Your task to perform on an android device: turn on the 24-hour format for clock Image 0: 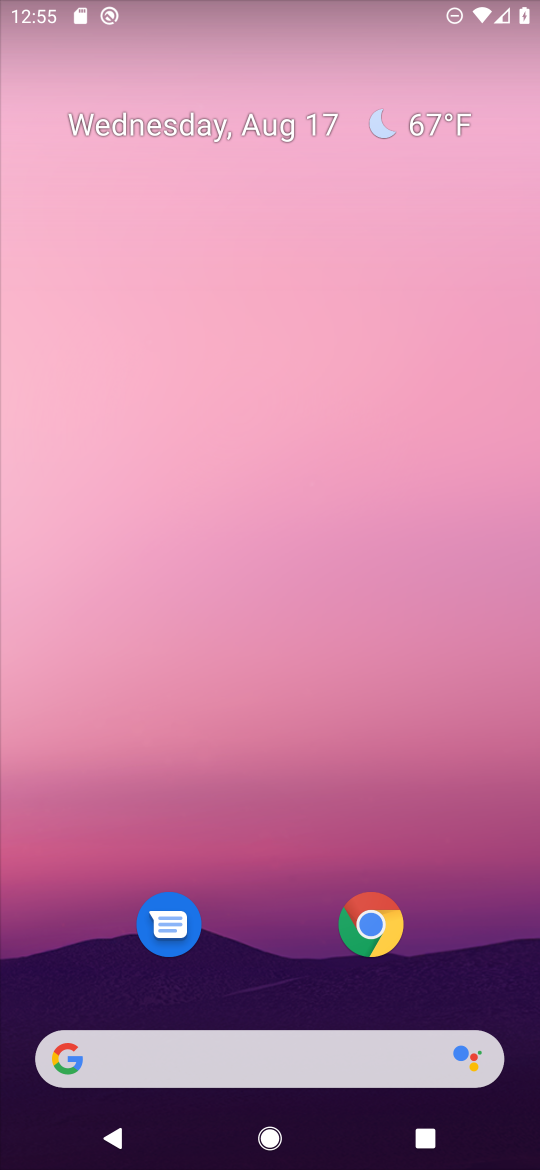
Step 0: drag from (264, 1017) to (267, 157)
Your task to perform on an android device: turn on the 24-hour format for clock Image 1: 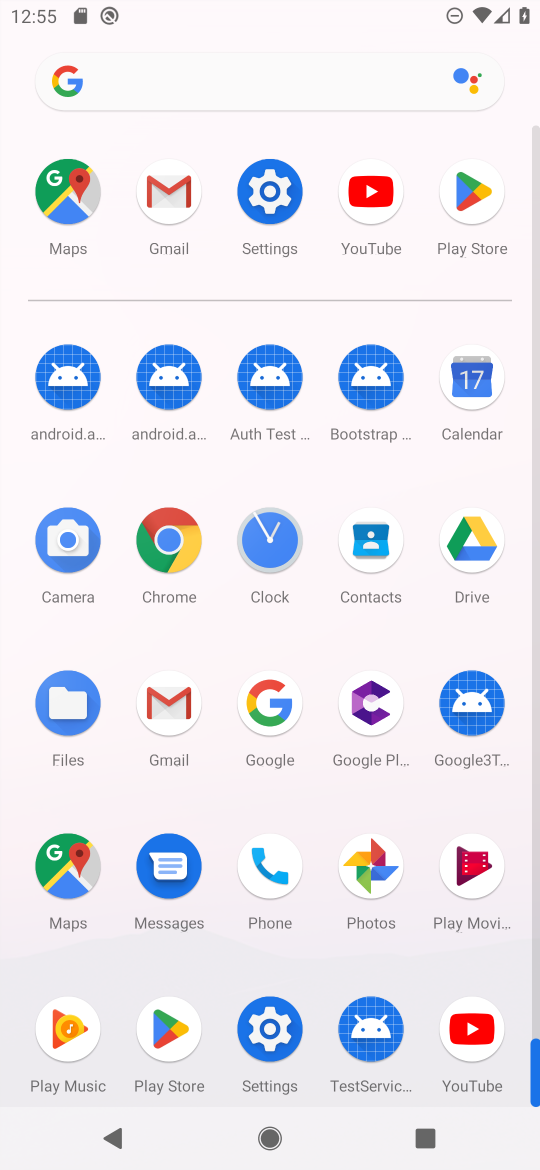
Step 1: click (261, 543)
Your task to perform on an android device: turn on the 24-hour format for clock Image 2: 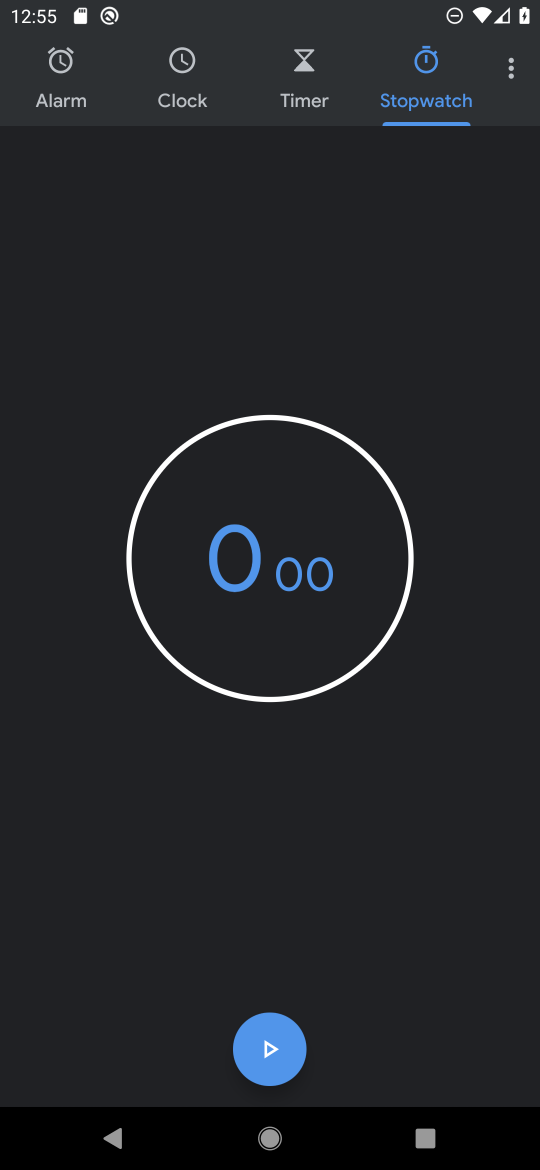
Step 2: click (525, 61)
Your task to perform on an android device: turn on the 24-hour format for clock Image 3: 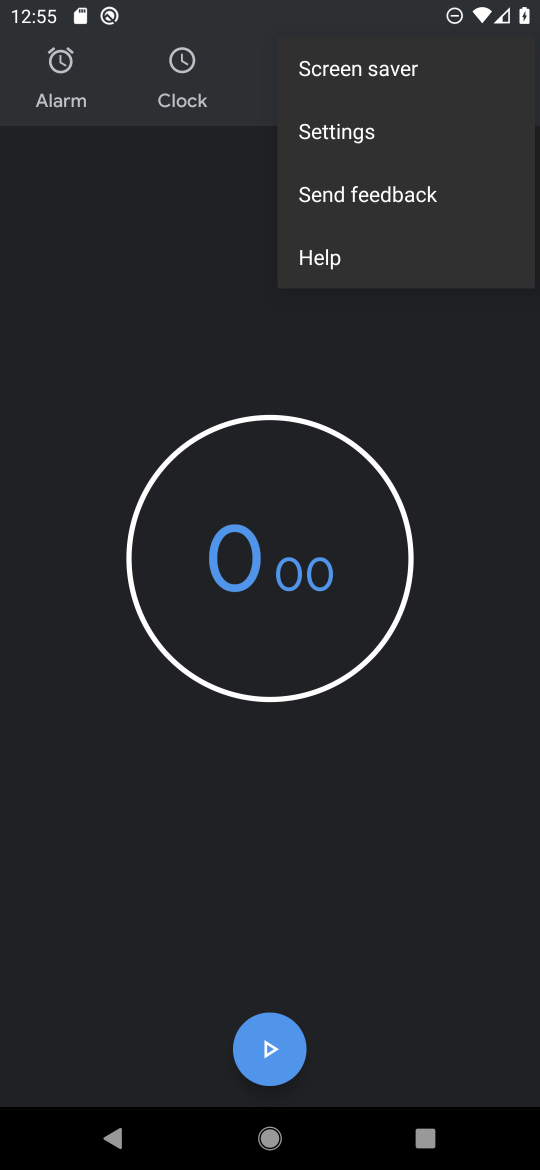
Step 3: click (373, 136)
Your task to perform on an android device: turn on the 24-hour format for clock Image 4: 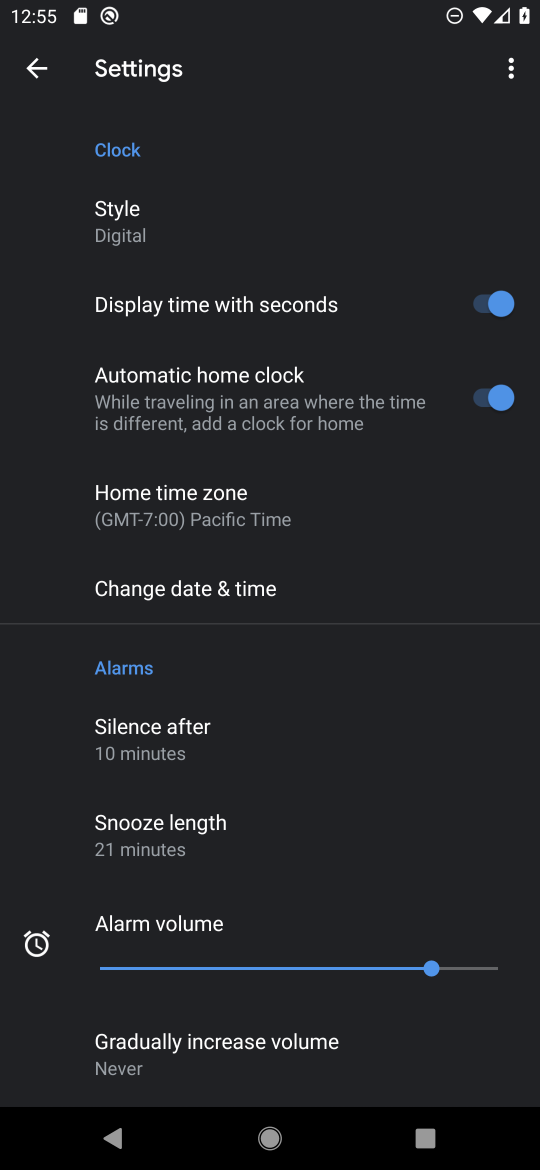
Step 4: drag from (301, 599) to (244, 59)
Your task to perform on an android device: turn on the 24-hour format for clock Image 5: 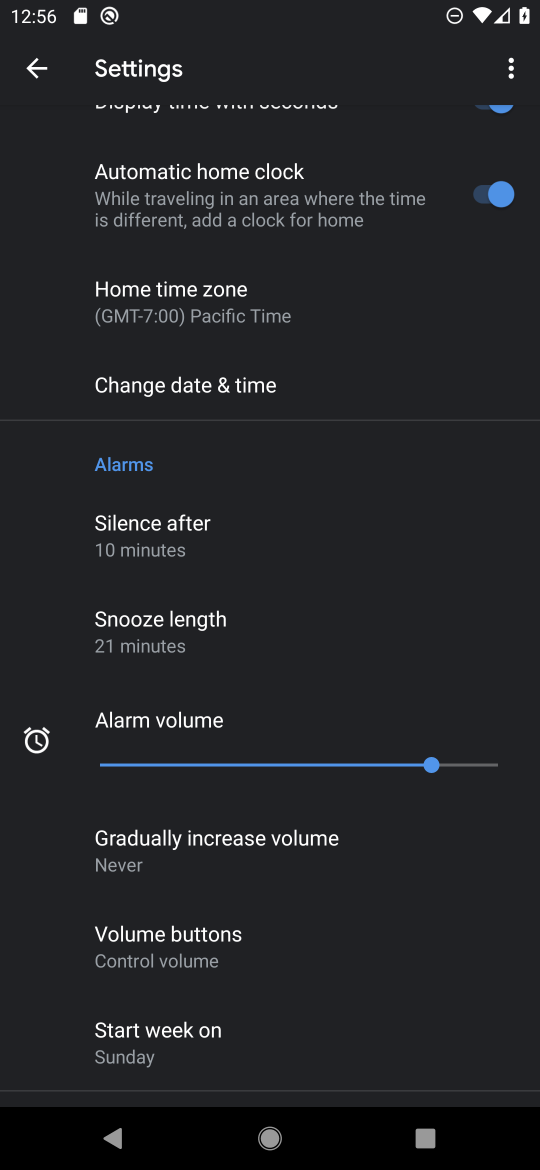
Step 5: drag from (256, 1089) to (233, 322)
Your task to perform on an android device: turn on the 24-hour format for clock Image 6: 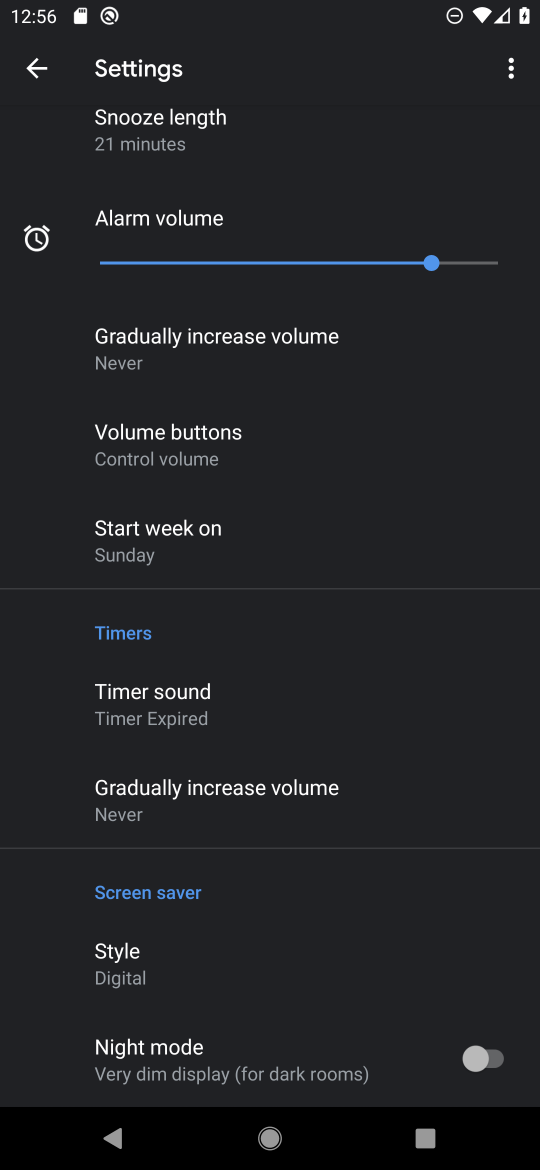
Step 6: drag from (275, 149) to (345, 990)
Your task to perform on an android device: turn on the 24-hour format for clock Image 7: 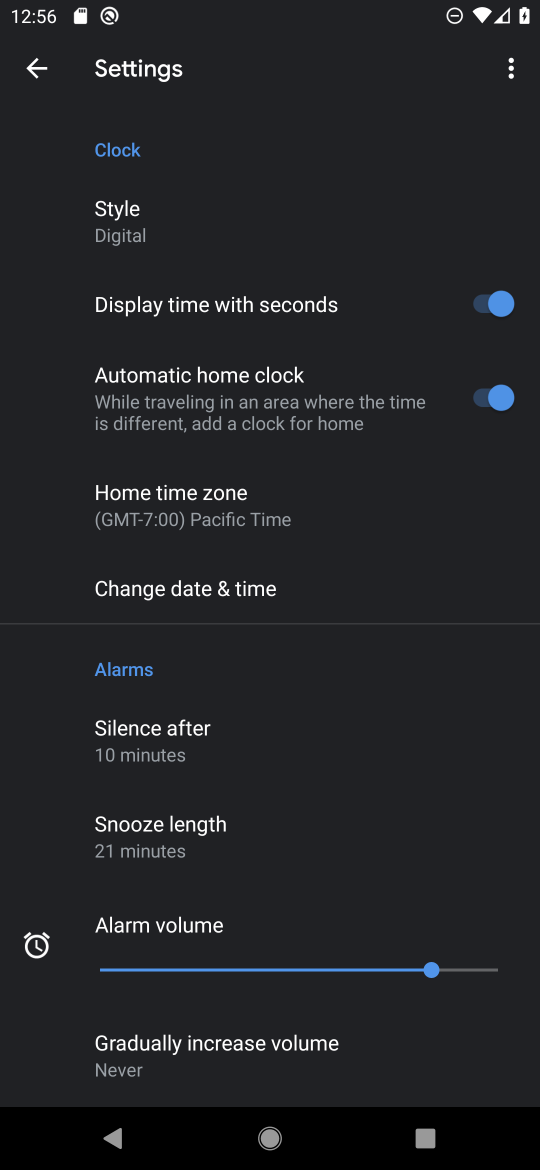
Step 7: drag from (22, 744) to (168, 44)
Your task to perform on an android device: turn on the 24-hour format for clock Image 8: 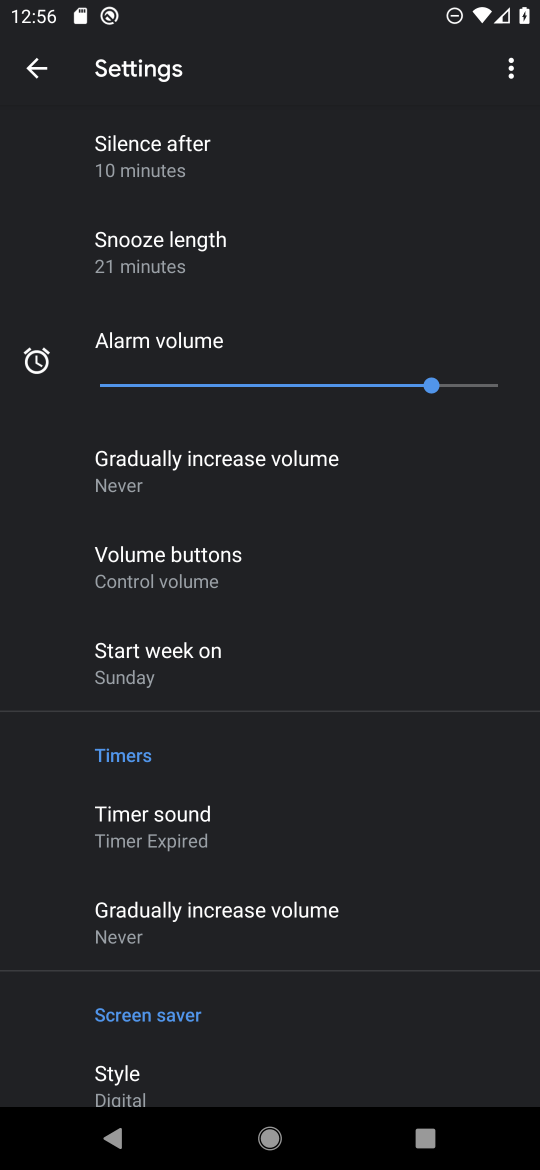
Step 8: drag from (370, 164) to (445, 923)
Your task to perform on an android device: turn on the 24-hour format for clock Image 9: 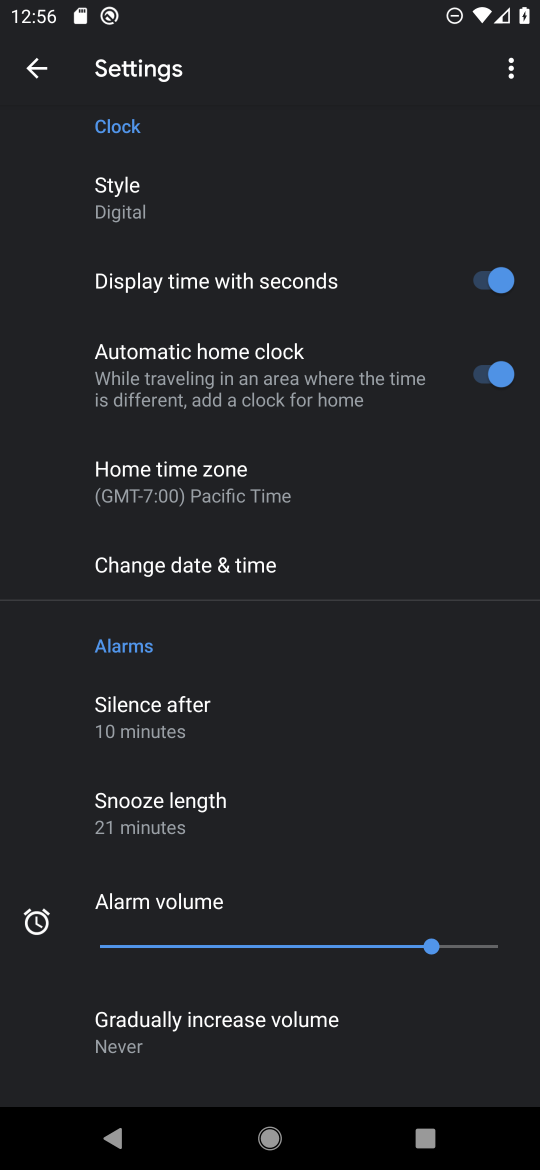
Step 9: drag from (297, 216) to (378, 826)
Your task to perform on an android device: turn on the 24-hour format for clock Image 10: 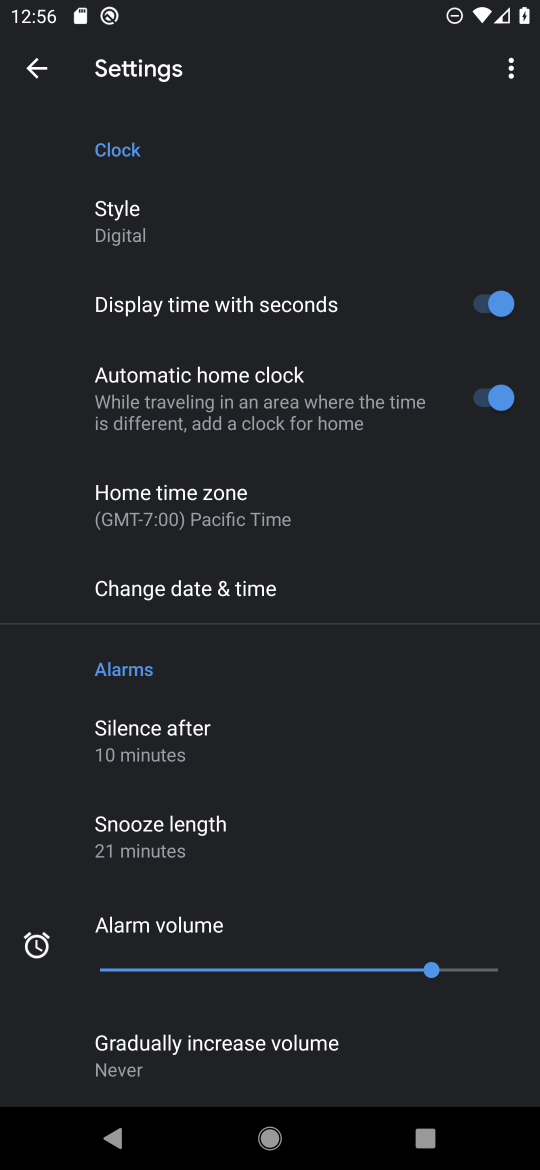
Step 10: click (278, 605)
Your task to perform on an android device: turn on the 24-hour format for clock Image 11: 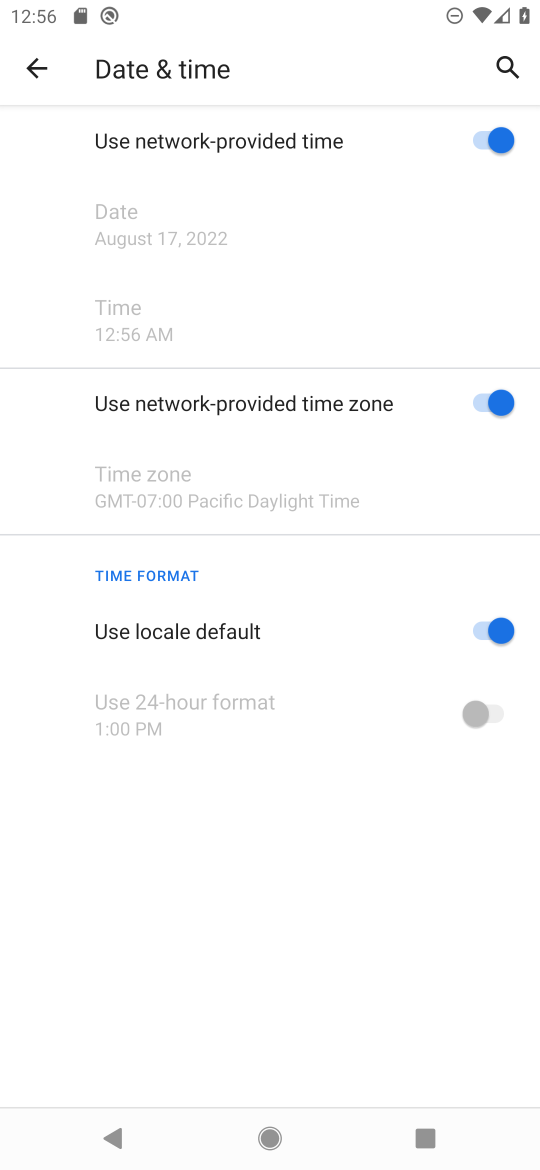
Step 11: click (495, 631)
Your task to perform on an android device: turn on the 24-hour format for clock Image 12: 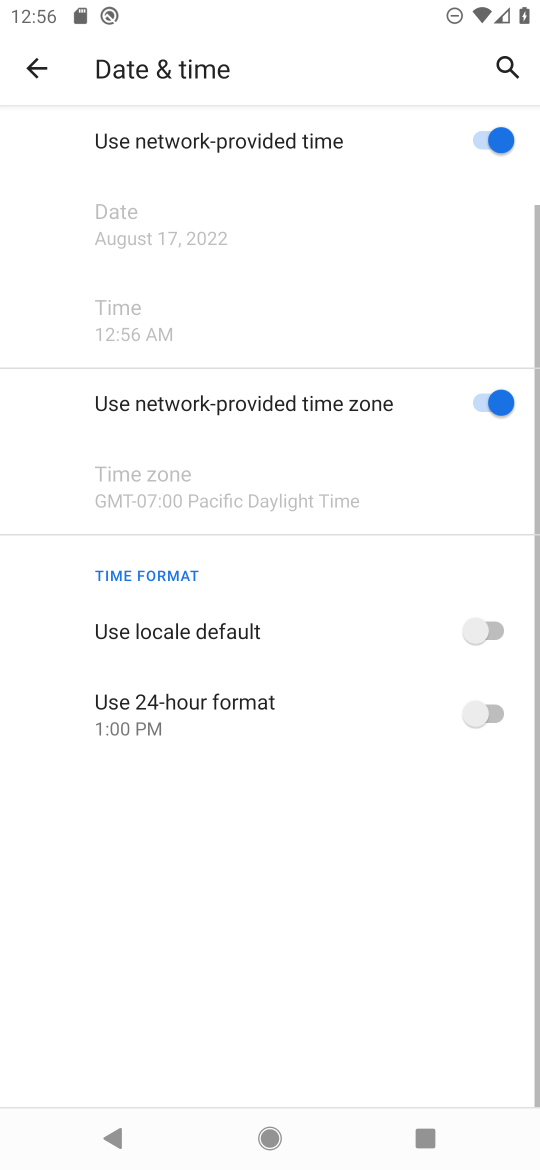
Step 12: click (484, 715)
Your task to perform on an android device: turn on the 24-hour format for clock Image 13: 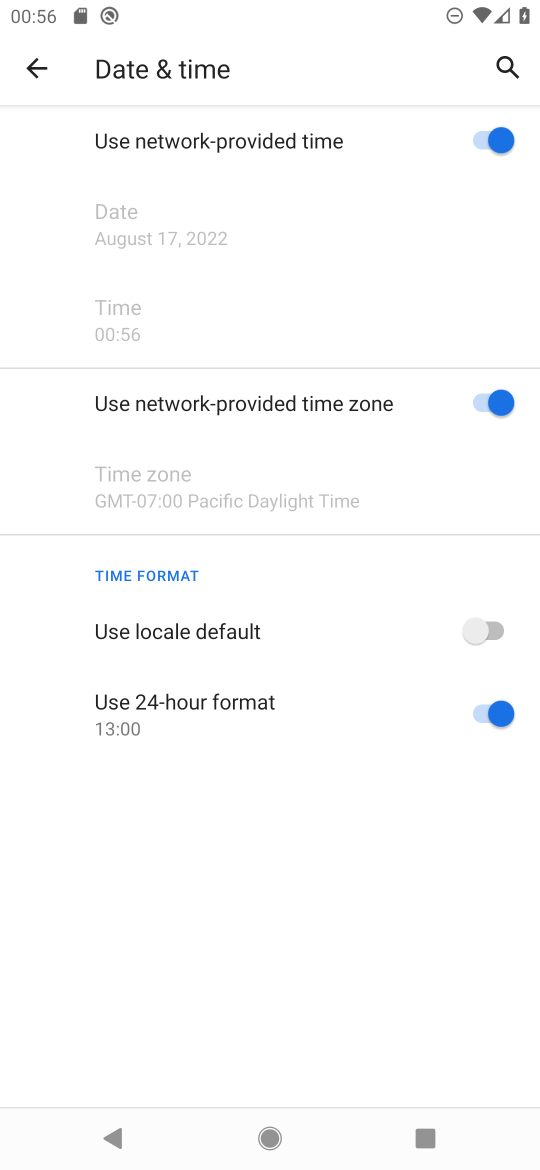
Step 13: task complete